Your task to perform on an android device: change the clock display to digital Image 0: 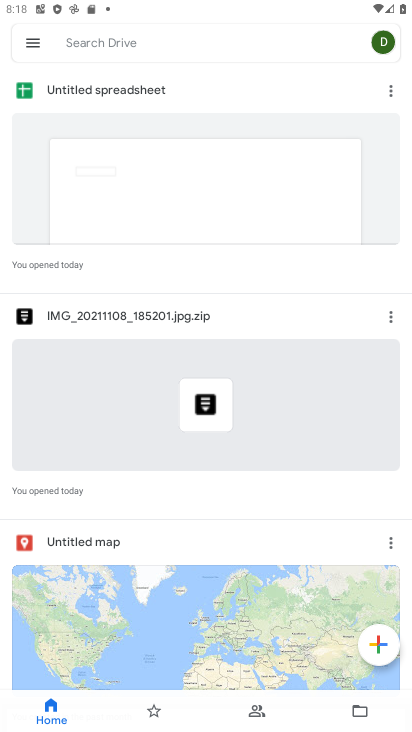
Step 0: press home button
Your task to perform on an android device: change the clock display to digital Image 1: 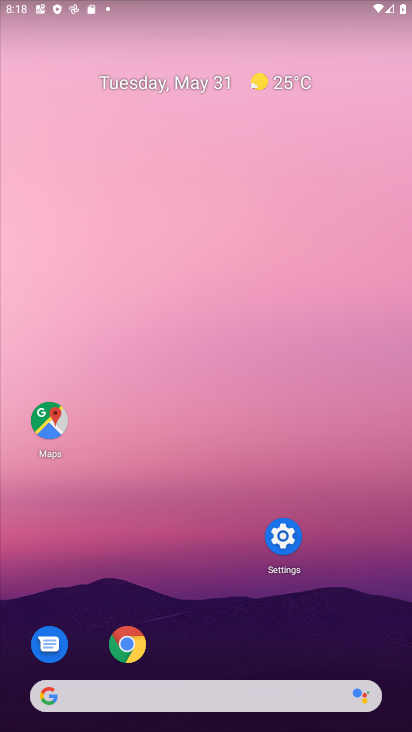
Step 1: drag from (226, 713) to (213, 204)
Your task to perform on an android device: change the clock display to digital Image 2: 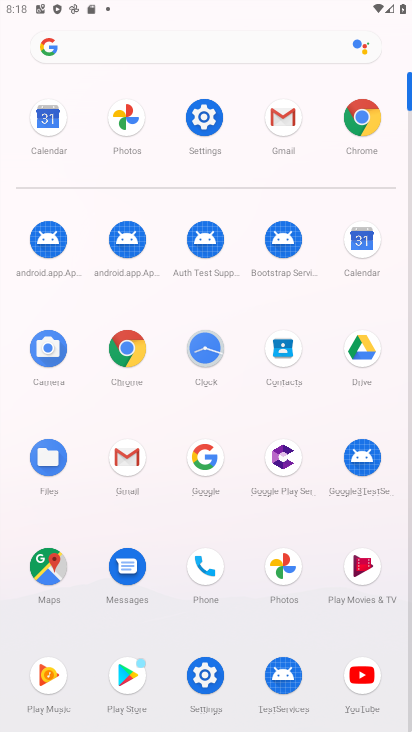
Step 2: click (198, 350)
Your task to perform on an android device: change the clock display to digital Image 3: 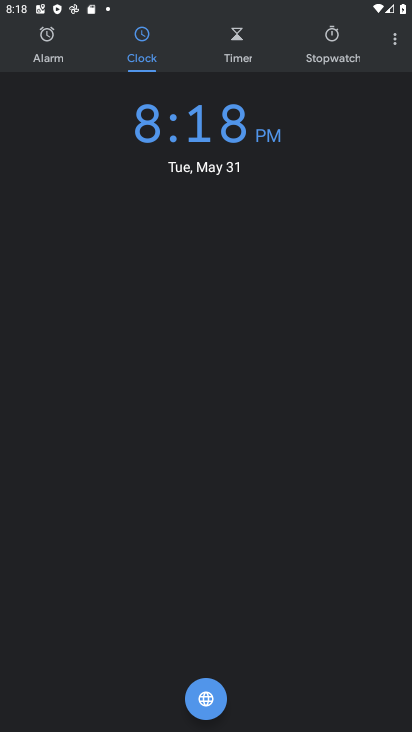
Step 3: click (393, 48)
Your task to perform on an android device: change the clock display to digital Image 4: 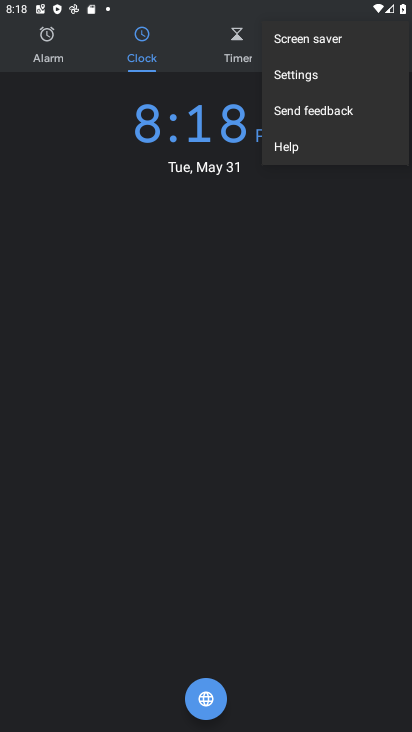
Step 4: click (300, 73)
Your task to perform on an android device: change the clock display to digital Image 5: 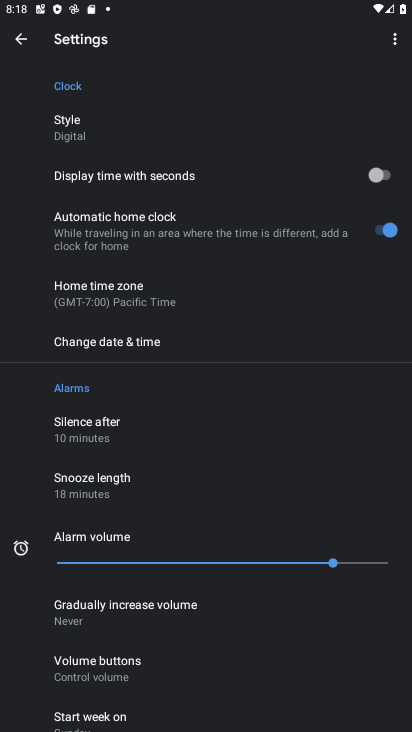
Step 5: click (84, 126)
Your task to perform on an android device: change the clock display to digital Image 6: 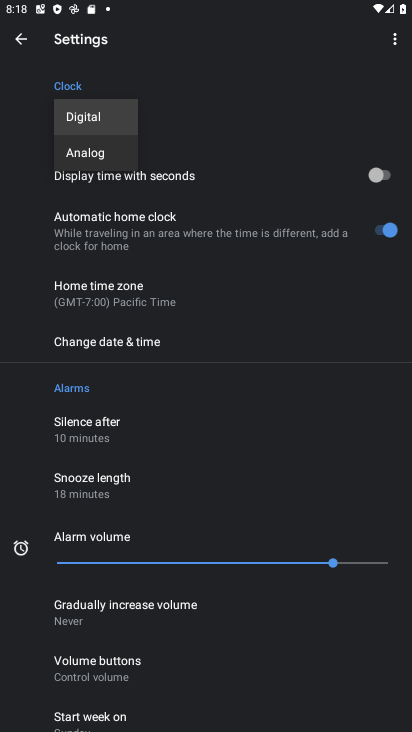
Step 6: click (88, 126)
Your task to perform on an android device: change the clock display to digital Image 7: 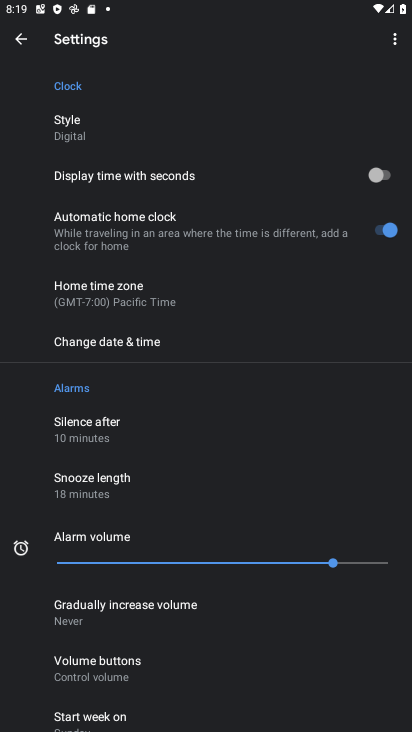
Step 7: task complete